Your task to perform on an android device: Go to notification settings Image 0: 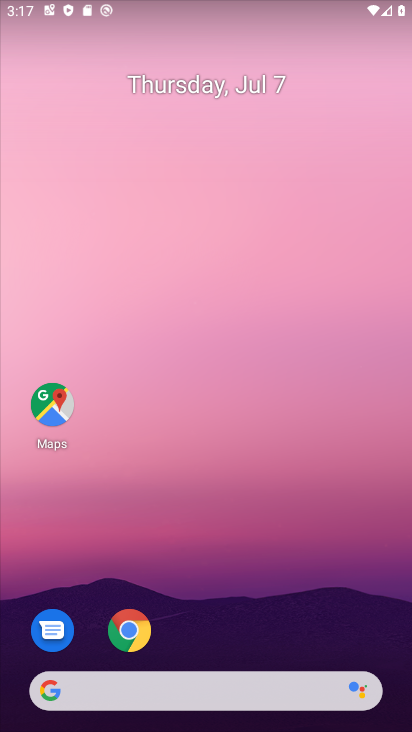
Step 0: drag from (200, 647) to (252, 172)
Your task to perform on an android device: Go to notification settings Image 1: 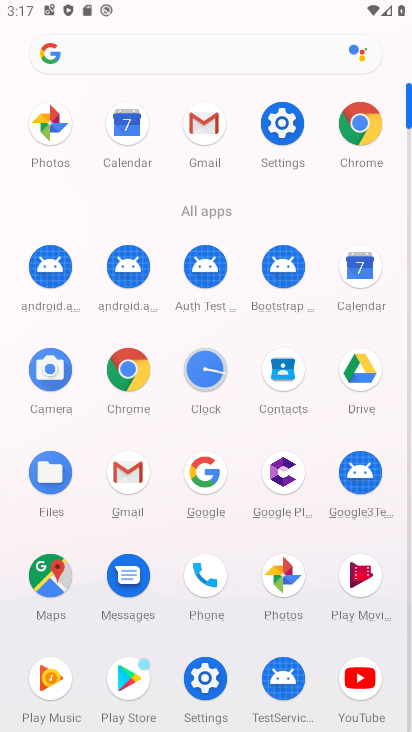
Step 1: click (195, 678)
Your task to perform on an android device: Go to notification settings Image 2: 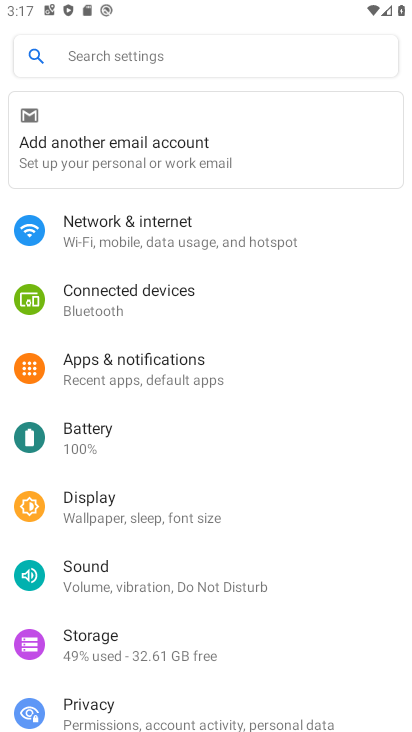
Step 2: click (157, 374)
Your task to perform on an android device: Go to notification settings Image 3: 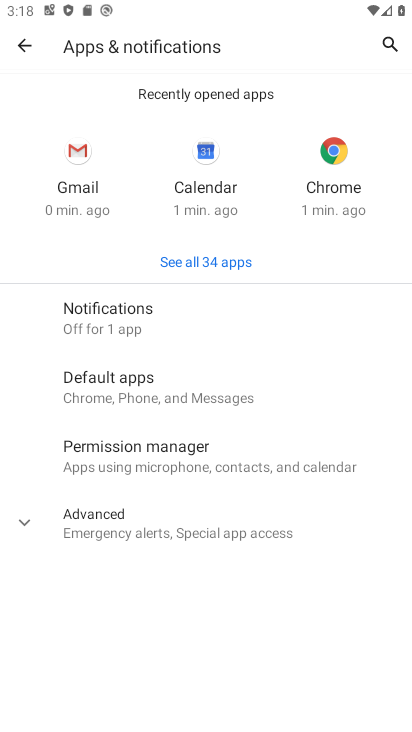
Step 3: task complete